Your task to perform on an android device: Open Google Chrome and click the shortcut for Amazon.com Image 0: 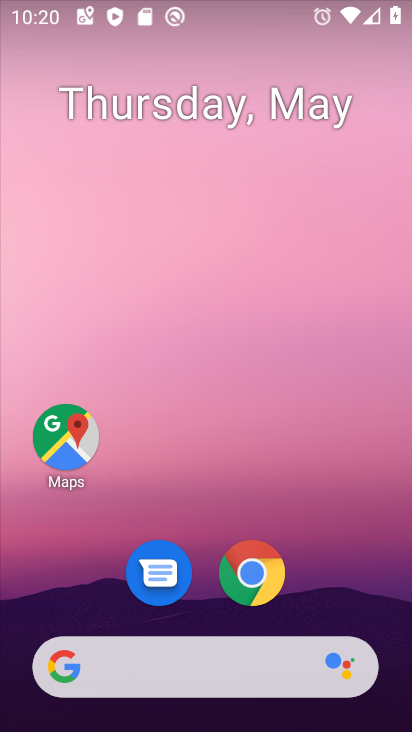
Step 0: click (251, 588)
Your task to perform on an android device: Open Google Chrome and click the shortcut for Amazon.com Image 1: 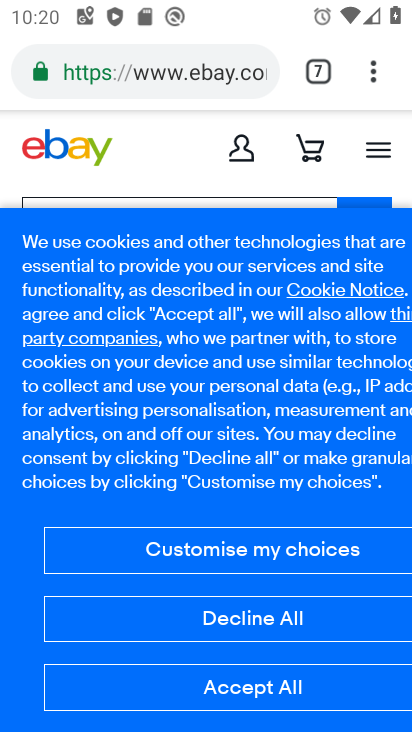
Step 1: click (320, 59)
Your task to perform on an android device: Open Google Chrome and click the shortcut for Amazon.com Image 2: 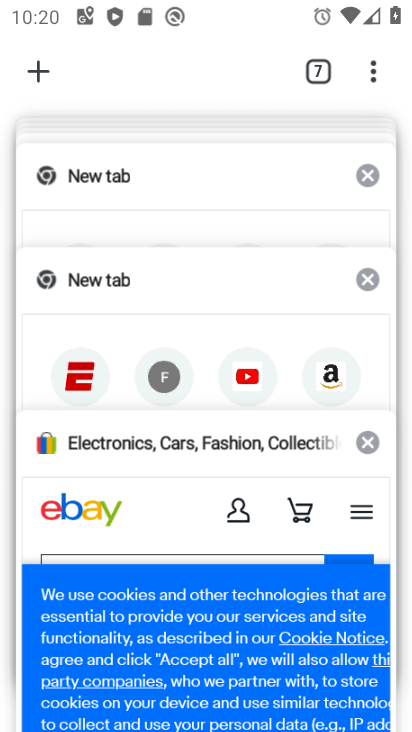
Step 2: click (36, 78)
Your task to perform on an android device: Open Google Chrome and click the shortcut for Amazon.com Image 3: 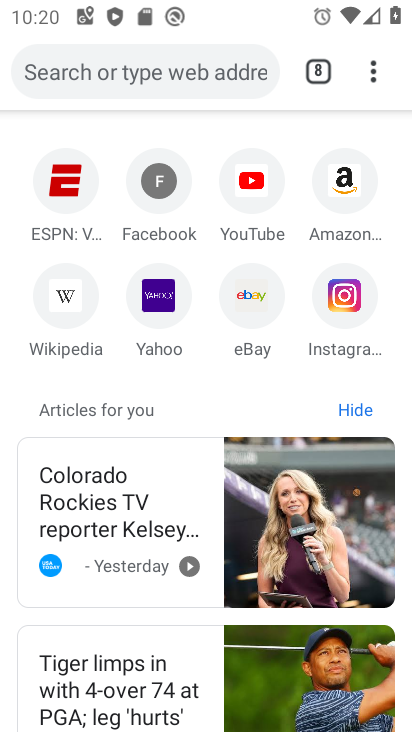
Step 3: click (334, 175)
Your task to perform on an android device: Open Google Chrome and click the shortcut for Amazon.com Image 4: 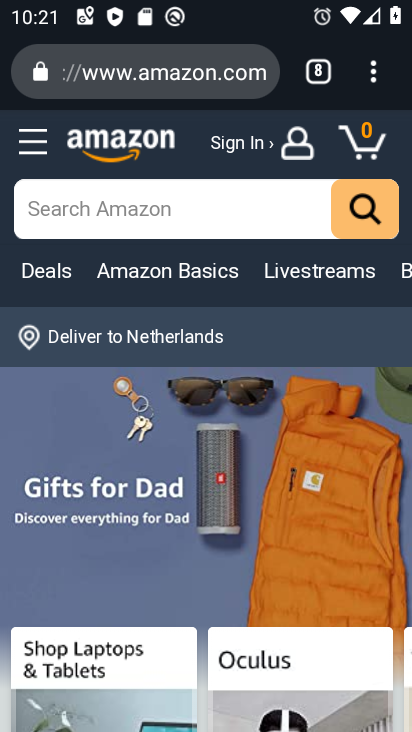
Step 4: task complete